Your task to perform on an android device: turn on priority inbox in the gmail app Image 0: 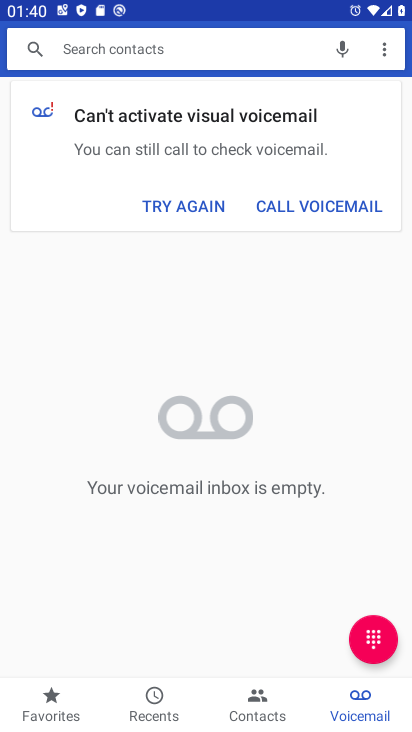
Step 0: press home button
Your task to perform on an android device: turn on priority inbox in the gmail app Image 1: 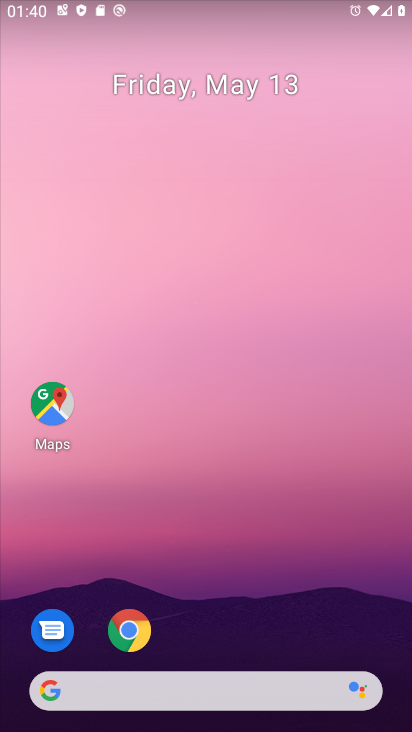
Step 1: drag from (260, 702) to (248, 241)
Your task to perform on an android device: turn on priority inbox in the gmail app Image 2: 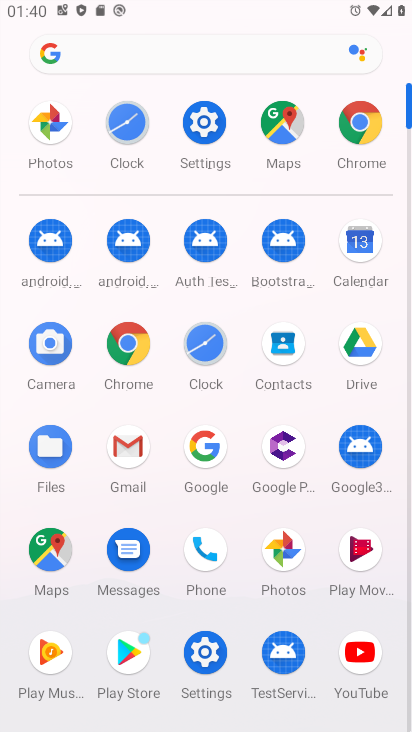
Step 2: click (146, 445)
Your task to perform on an android device: turn on priority inbox in the gmail app Image 3: 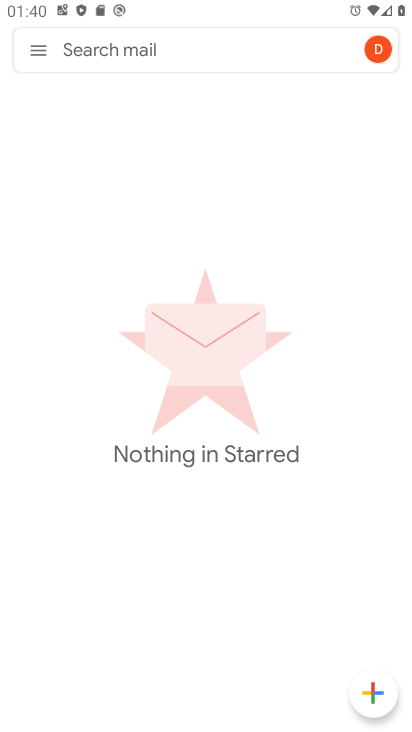
Step 3: click (32, 56)
Your task to perform on an android device: turn on priority inbox in the gmail app Image 4: 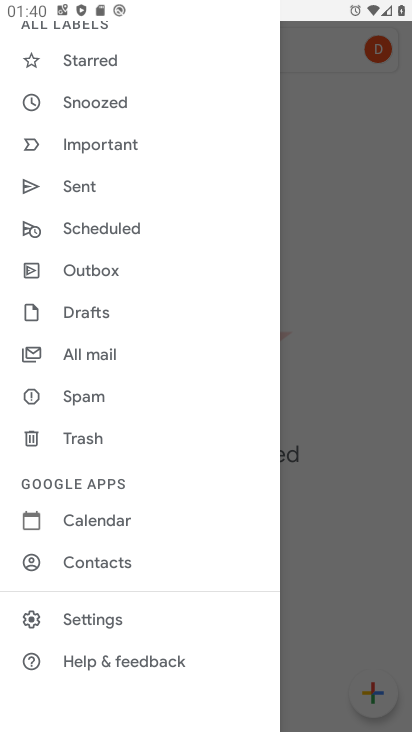
Step 4: click (87, 615)
Your task to perform on an android device: turn on priority inbox in the gmail app Image 5: 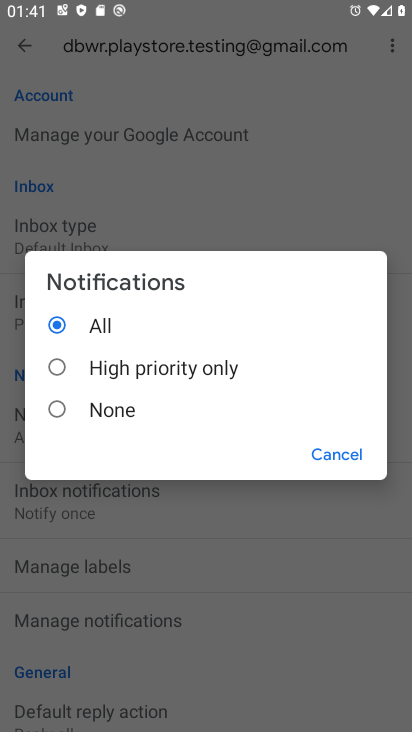
Step 5: click (329, 461)
Your task to perform on an android device: turn on priority inbox in the gmail app Image 6: 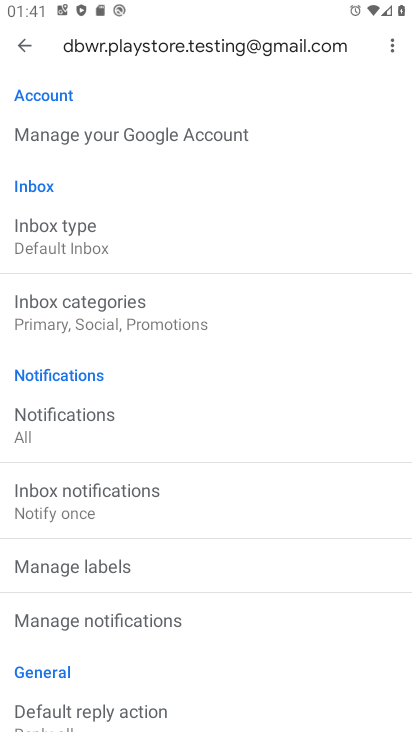
Step 6: click (75, 226)
Your task to perform on an android device: turn on priority inbox in the gmail app Image 7: 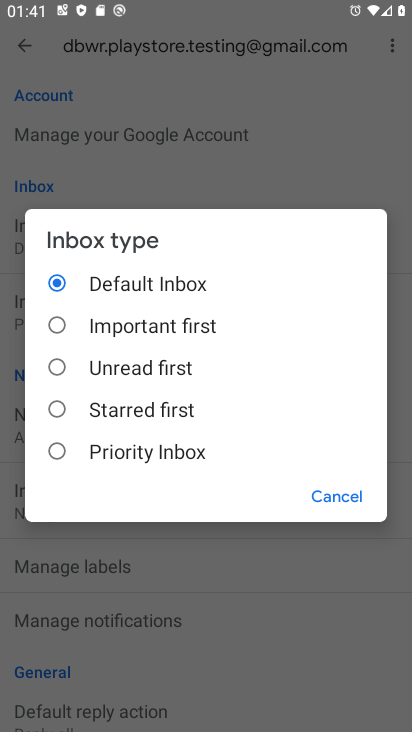
Step 7: click (140, 454)
Your task to perform on an android device: turn on priority inbox in the gmail app Image 8: 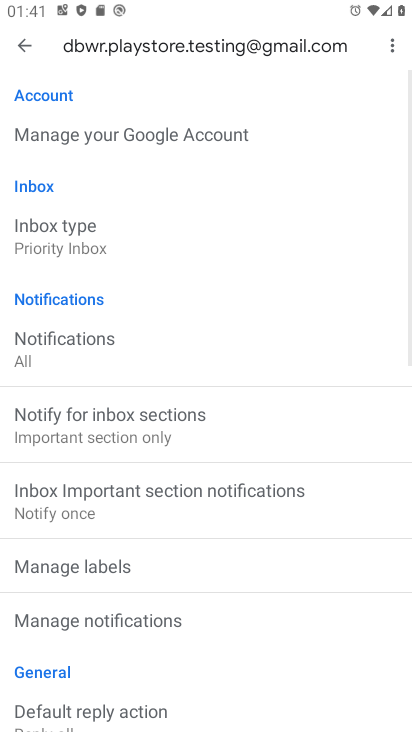
Step 8: task complete